Your task to perform on an android device: Open Google Chrome and open the bookmarks view Image 0: 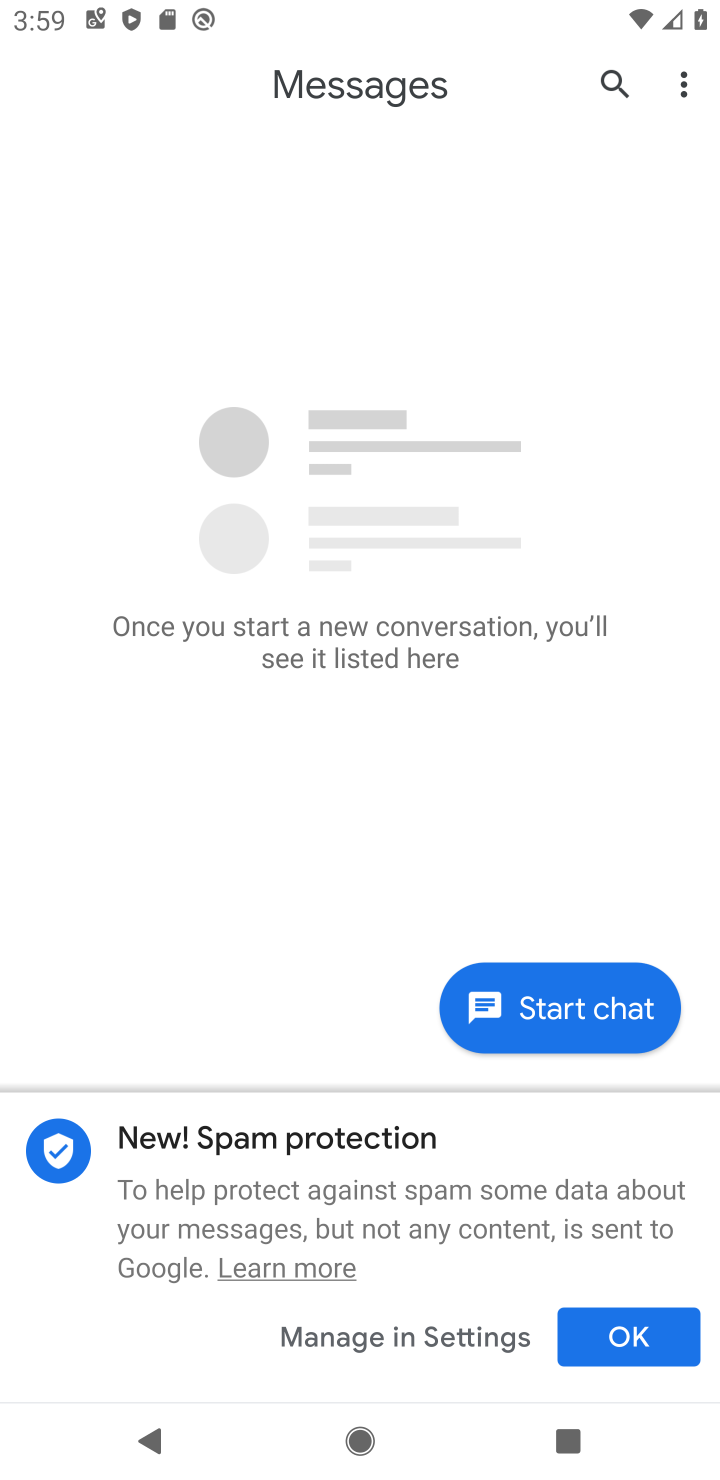
Step 0: press home button
Your task to perform on an android device: Open Google Chrome and open the bookmarks view Image 1: 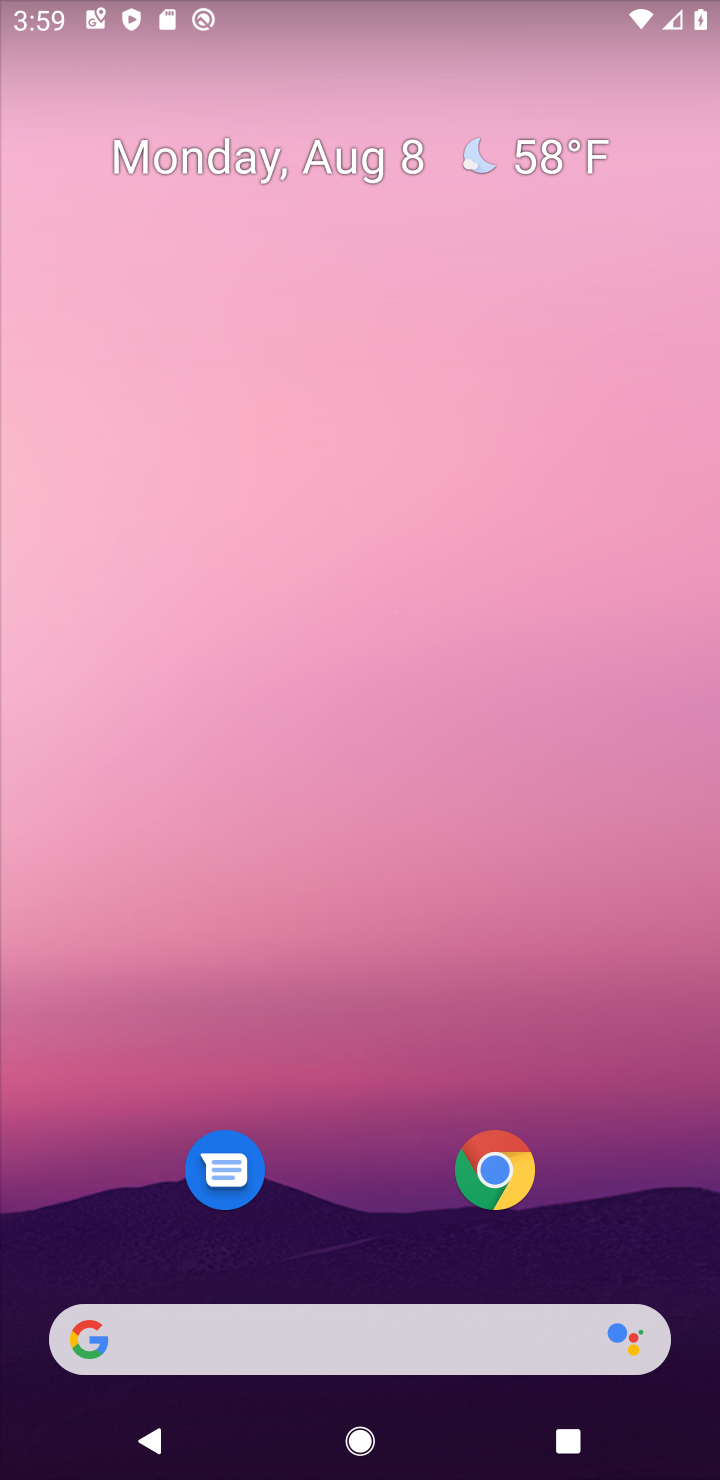
Step 1: click (479, 1194)
Your task to perform on an android device: Open Google Chrome and open the bookmarks view Image 2: 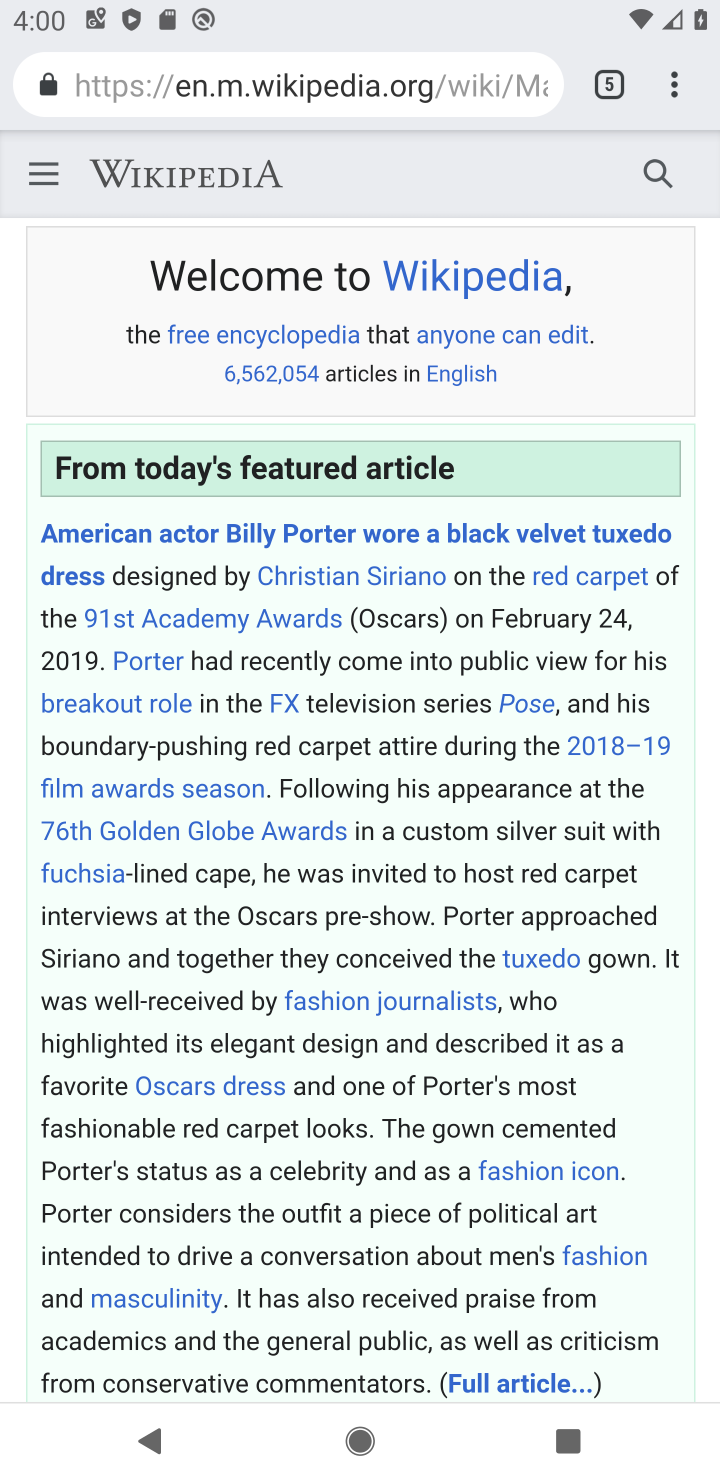
Step 2: click (662, 80)
Your task to perform on an android device: Open Google Chrome and open the bookmarks view Image 3: 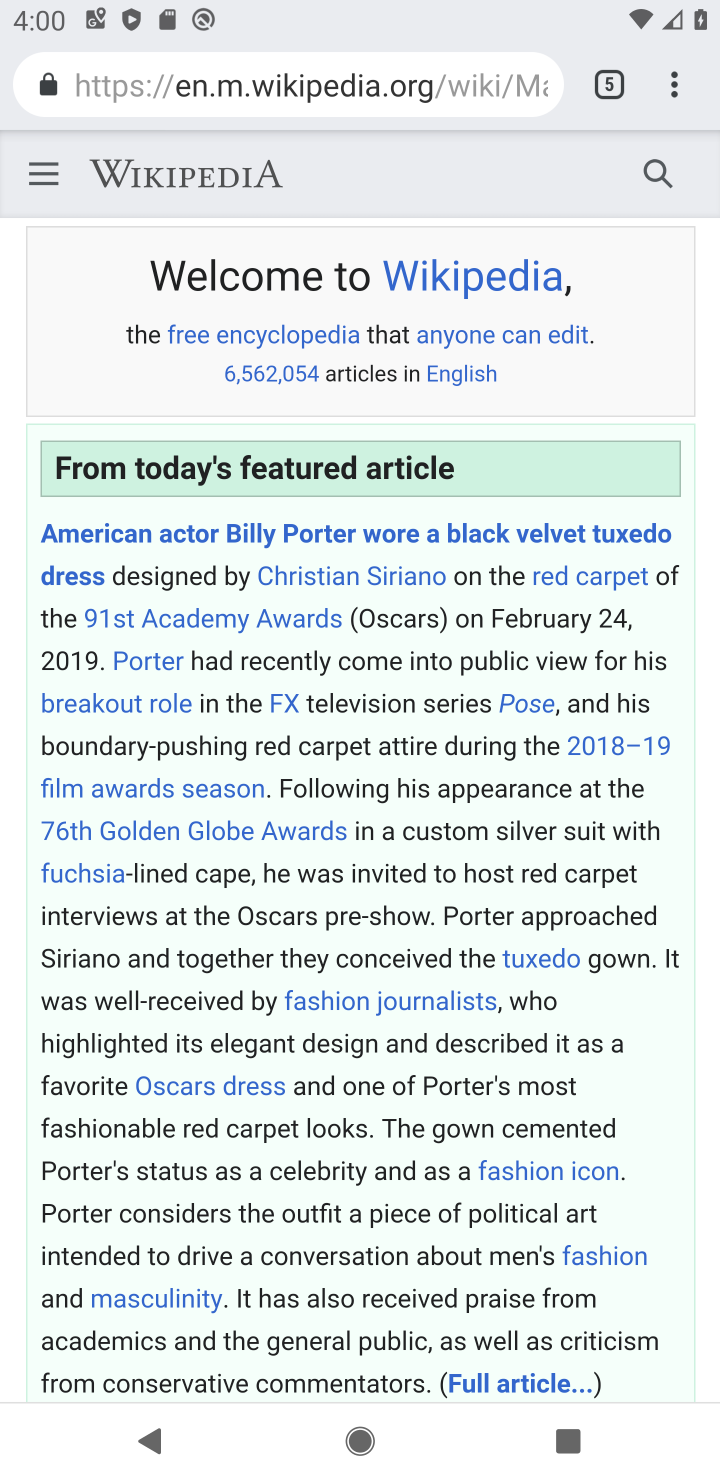
Step 3: task complete